Your task to perform on an android device: install app "Gmail" Image 0: 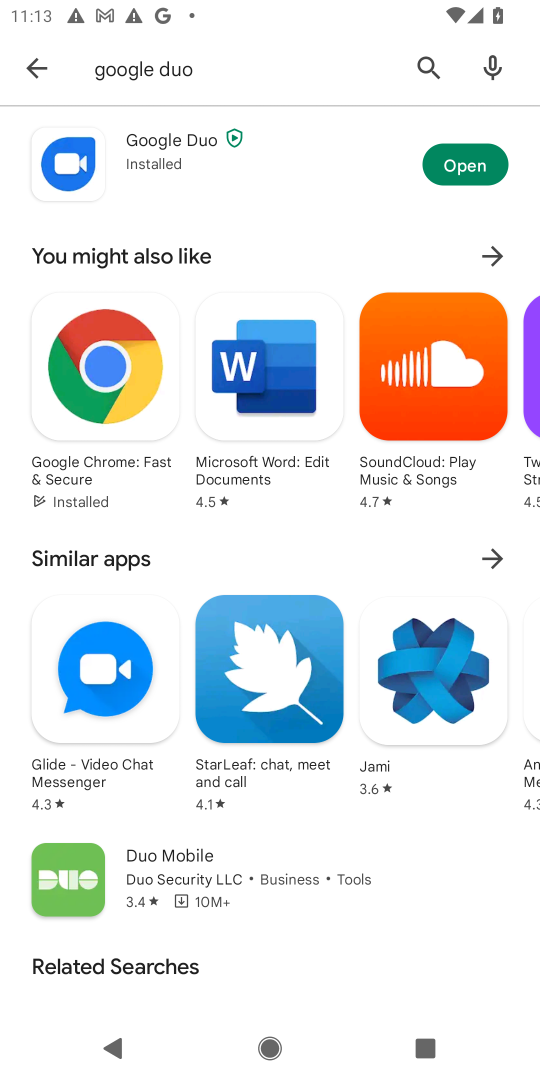
Step 0: press home button
Your task to perform on an android device: install app "Gmail" Image 1: 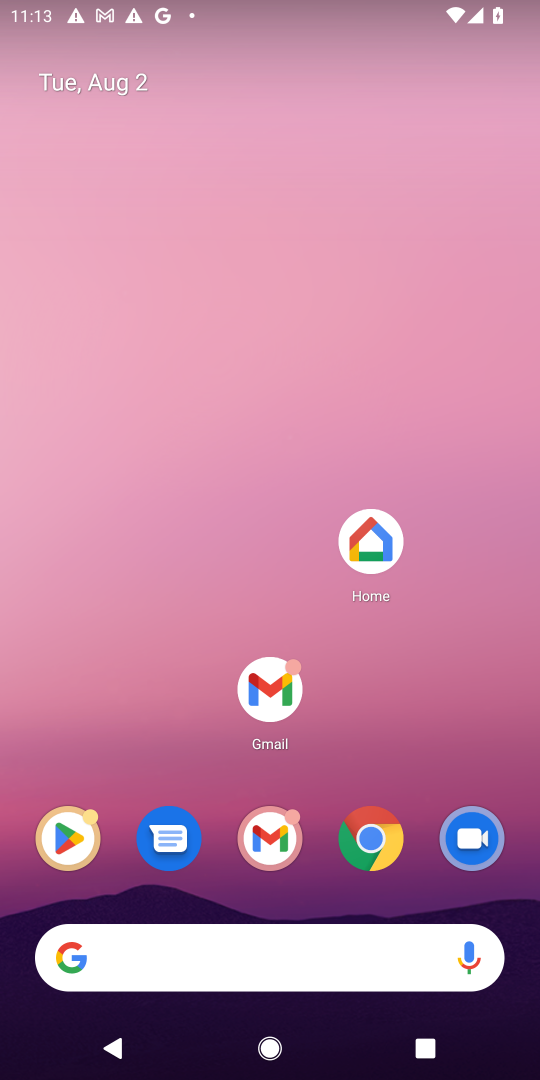
Step 1: drag from (363, 741) to (367, 119)
Your task to perform on an android device: install app "Gmail" Image 2: 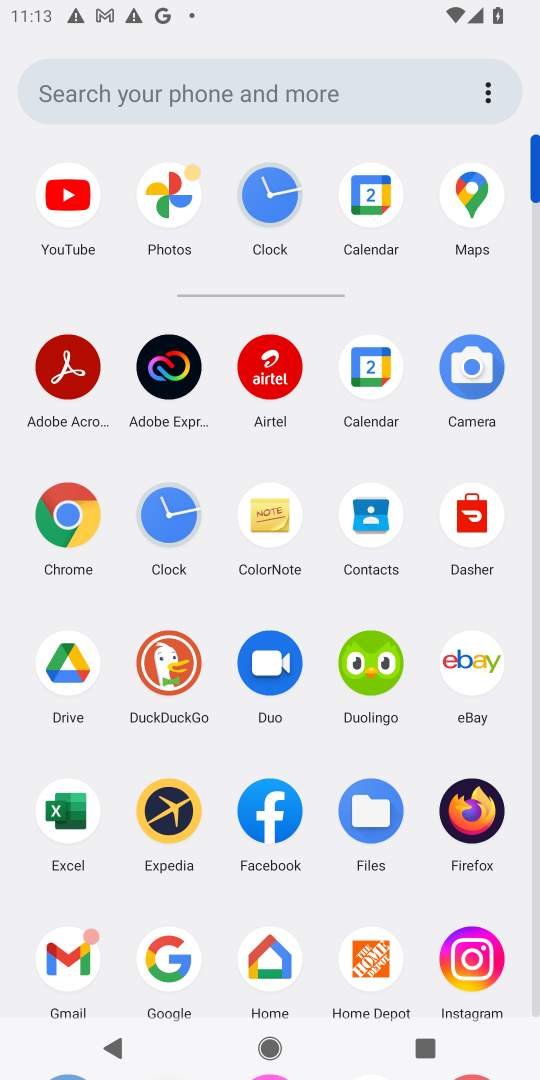
Step 2: drag from (307, 888) to (324, 457)
Your task to perform on an android device: install app "Gmail" Image 3: 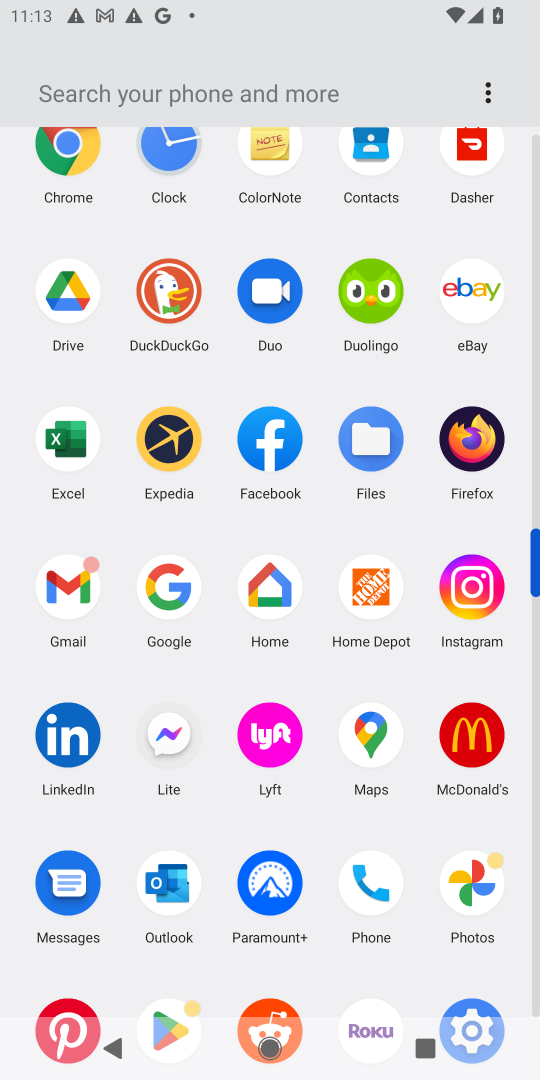
Step 3: drag from (315, 969) to (330, 466)
Your task to perform on an android device: install app "Gmail" Image 4: 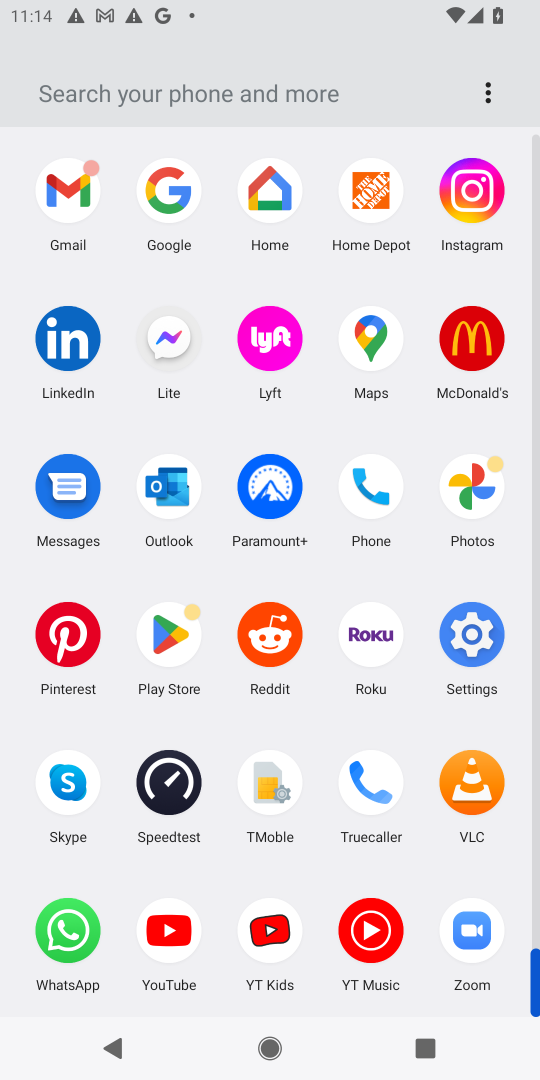
Step 4: drag from (320, 870) to (324, 485)
Your task to perform on an android device: install app "Gmail" Image 5: 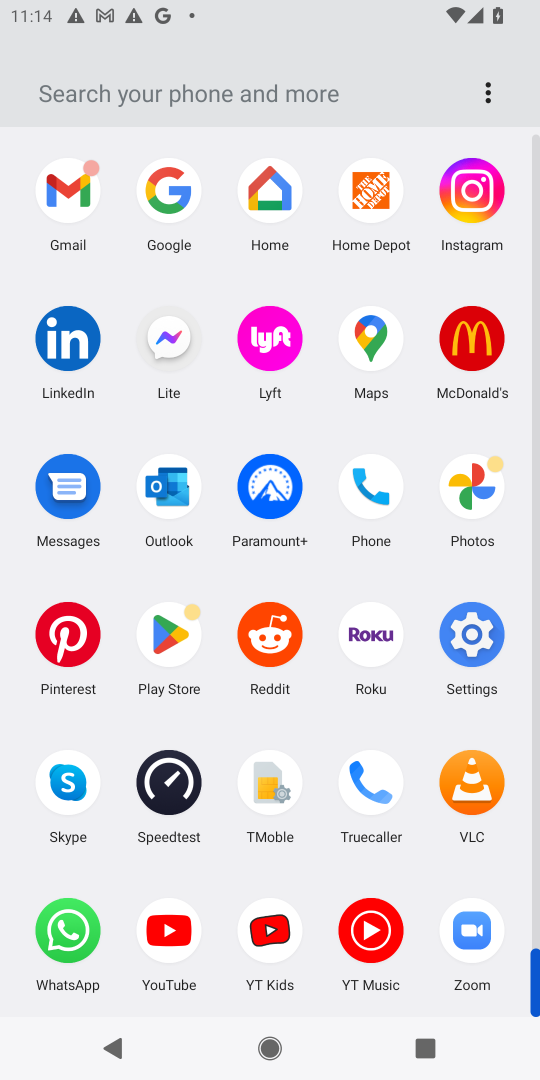
Step 5: click (157, 633)
Your task to perform on an android device: install app "Gmail" Image 6: 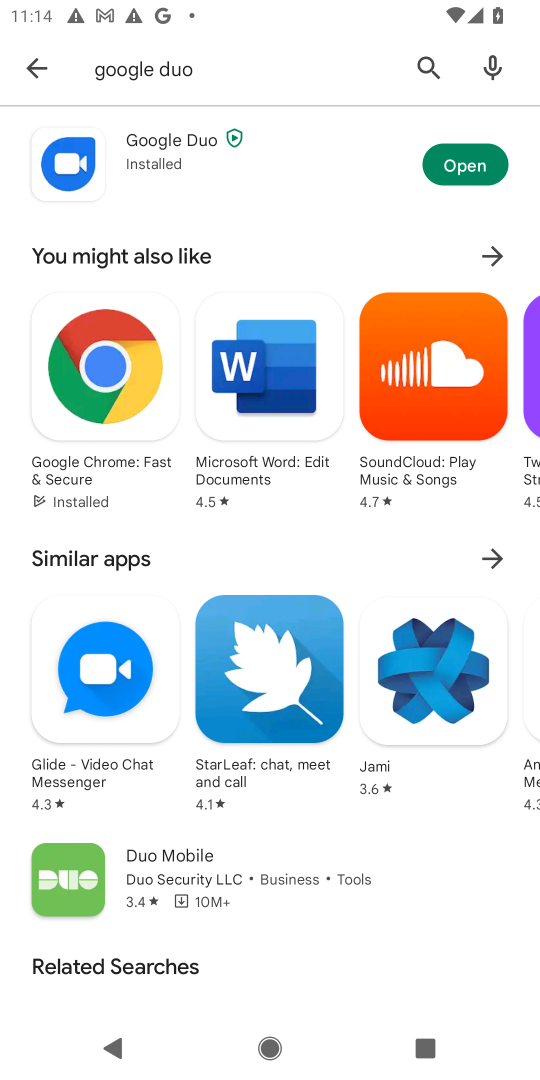
Step 6: click (427, 65)
Your task to perform on an android device: install app "Gmail" Image 7: 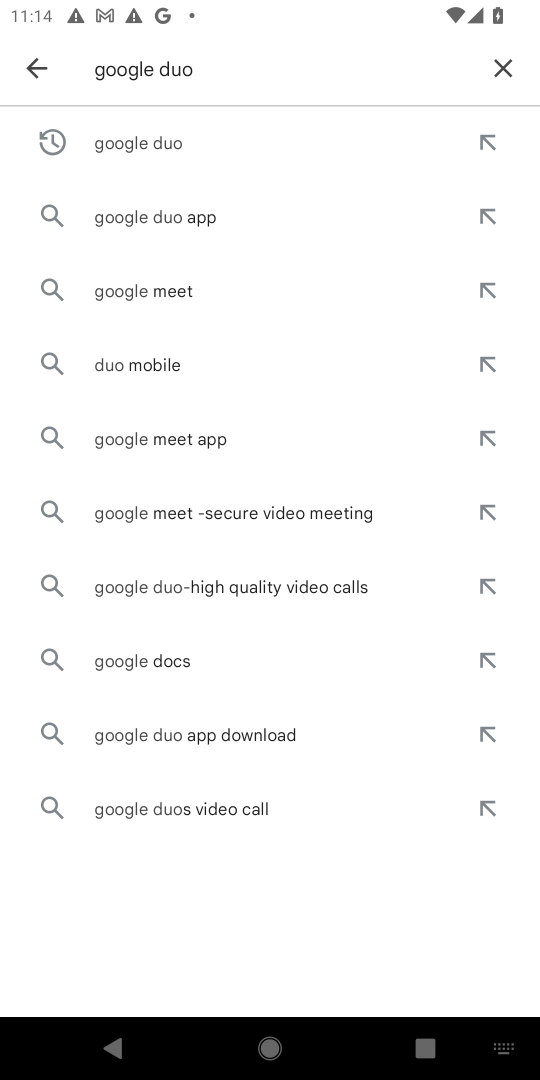
Step 7: click (501, 73)
Your task to perform on an android device: install app "Gmail" Image 8: 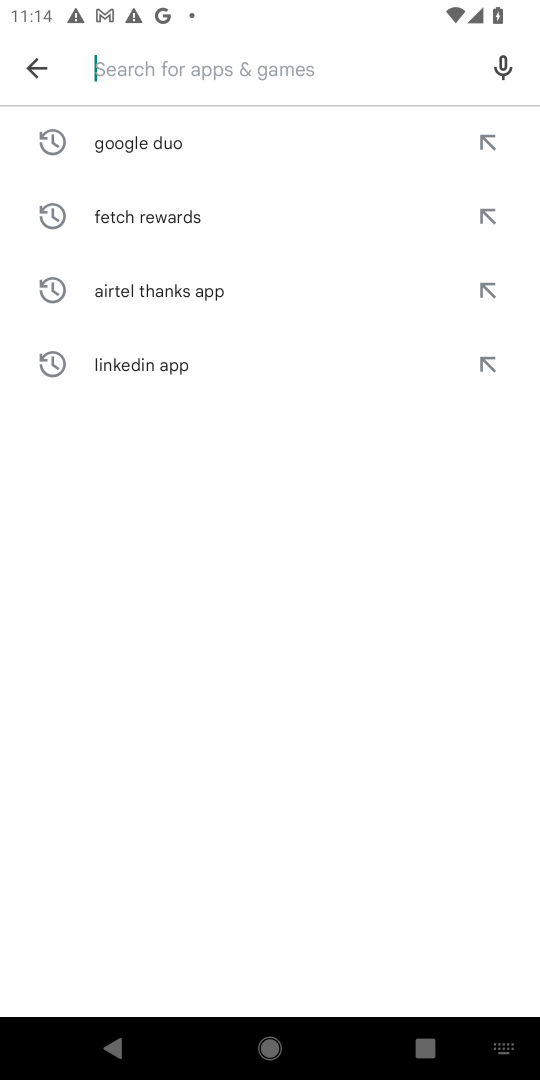
Step 8: click (398, 73)
Your task to perform on an android device: install app "Gmail" Image 9: 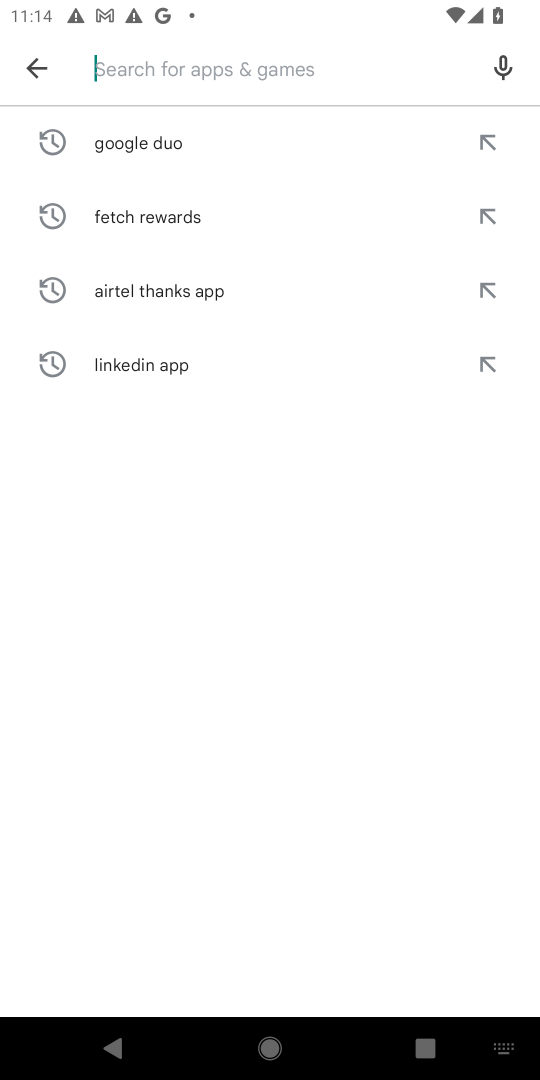
Step 9: type "gmail"
Your task to perform on an android device: install app "Gmail" Image 10: 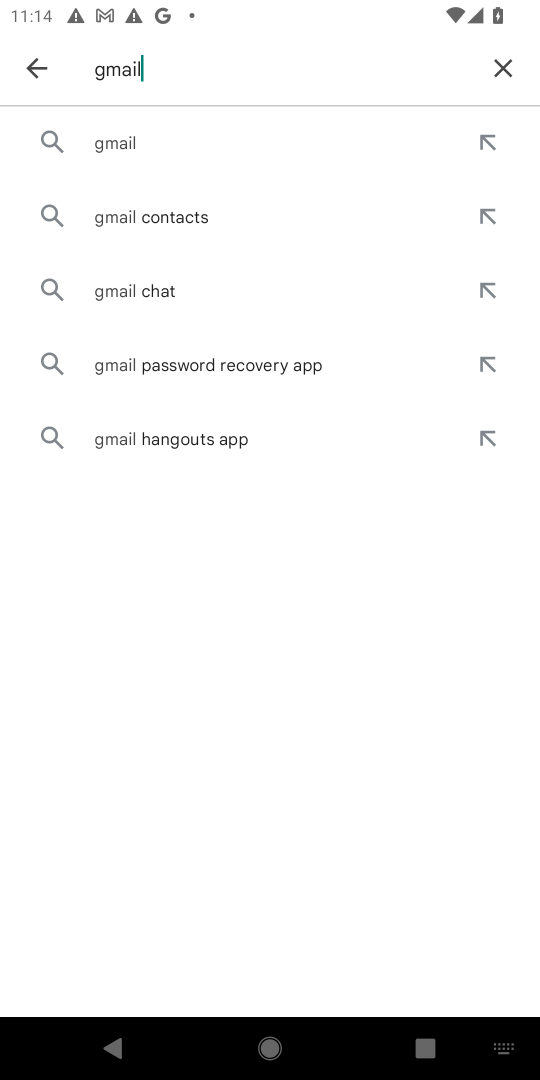
Step 10: click (167, 136)
Your task to perform on an android device: install app "Gmail" Image 11: 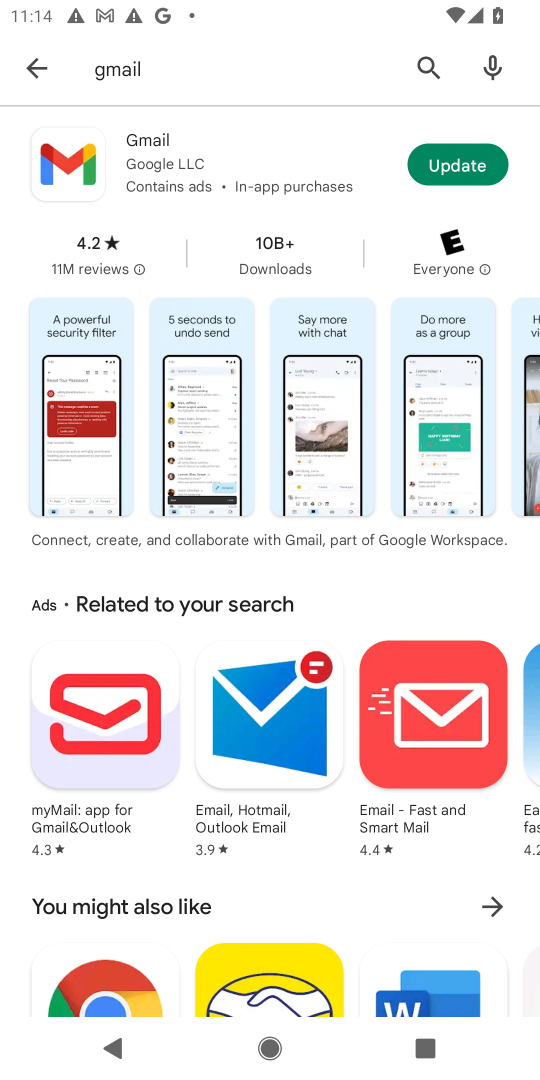
Step 11: task complete